Your task to perform on an android device: Search for vegetarian restaurants on Maps Image 0: 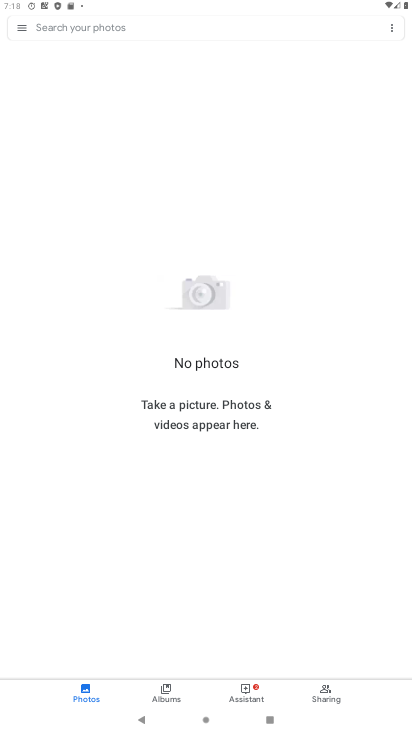
Step 0: press home button
Your task to perform on an android device: Search for vegetarian restaurants on Maps Image 1: 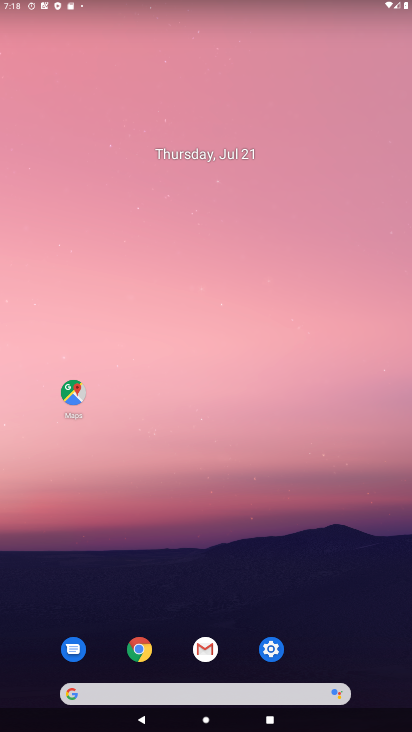
Step 1: click (67, 390)
Your task to perform on an android device: Search for vegetarian restaurants on Maps Image 2: 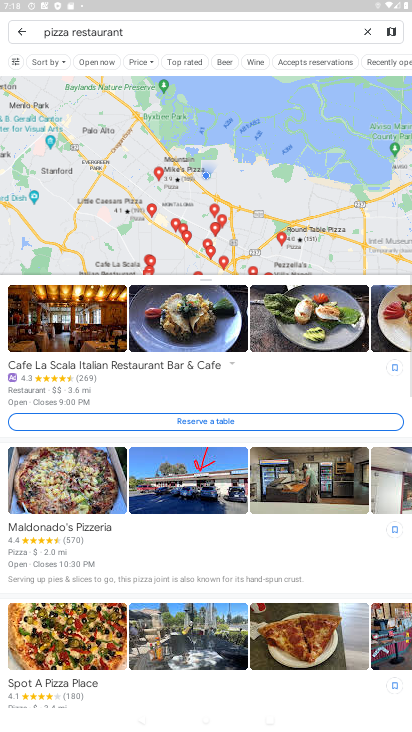
Step 2: click (17, 30)
Your task to perform on an android device: Search for vegetarian restaurants on Maps Image 3: 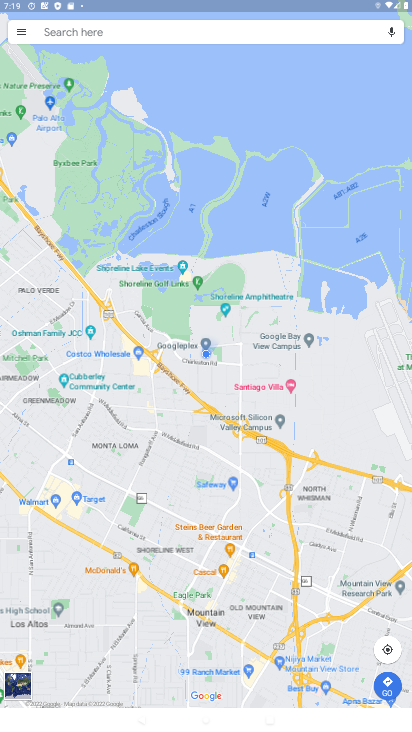
Step 3: click (101, 25)
Your task to perform on an android device: Search for vegetarian restaurants on Maps Image 4: 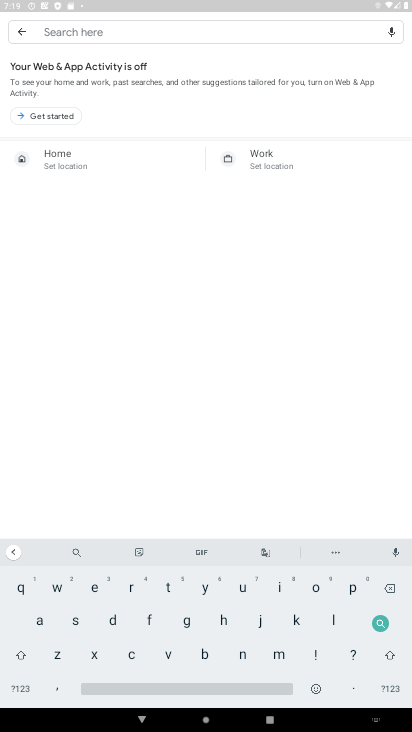
Step 4: click (165, 649)
Your task to perform on an android device: Search for vegetarian restaurants on Maps Image 5: 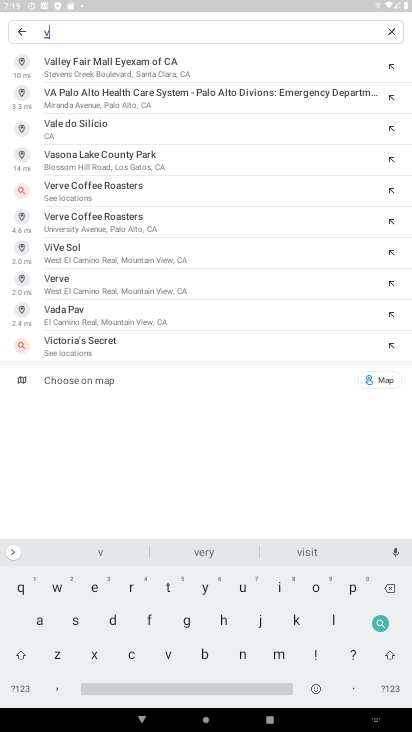
Step 5: click (92, 582)
Your task to perform on an android device: Search for vegetarian restaurants on Maps Image 6: 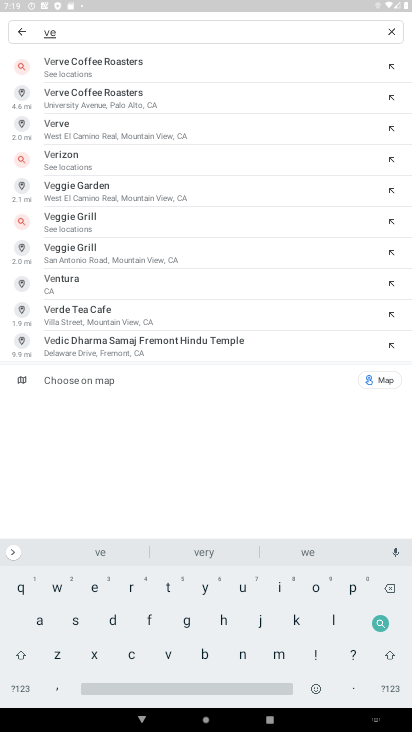
Step 6: click (184, 618)
Your task to perform on an android device: Search for vegetarian restaurants on Maps Image 7: 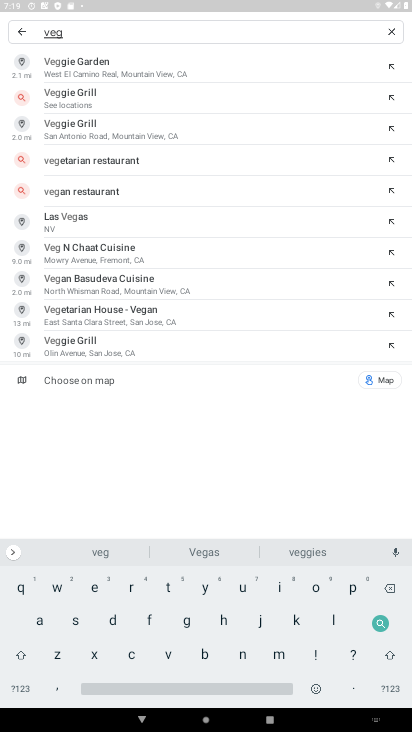
Step 7: click (95, 592)
Your task to perform on an android device: Search for vegetarian restaurants on Maps Image 8: 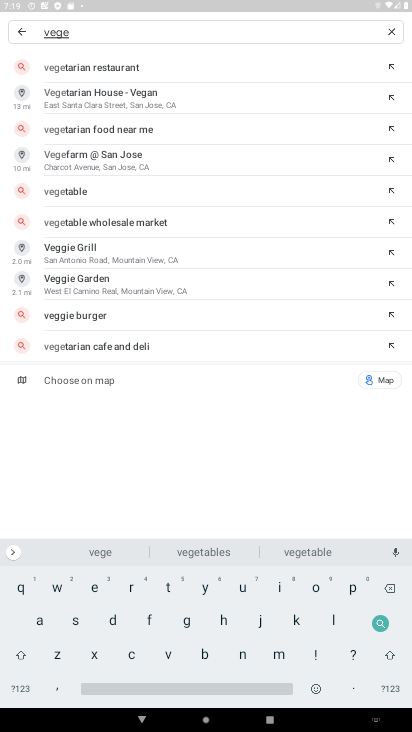
Step 8: click (87, 70)
Your task to perform on an android device: Search for vegetarian restaurants on Maps Image 9: 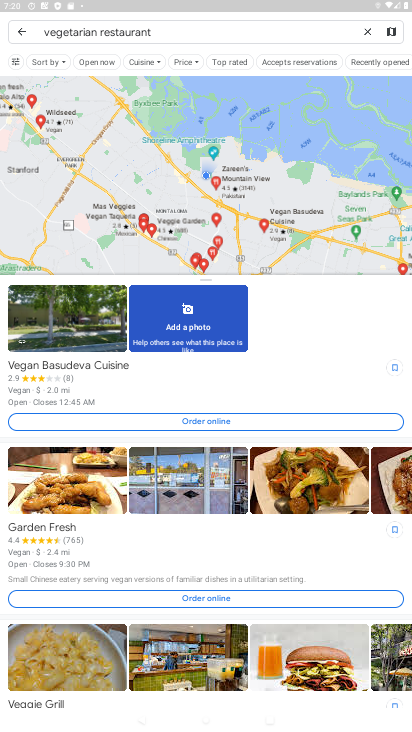
Step 9: task complete